Your task to perform on an android device: Open the phone app and click the voicemail tab. Image 0: 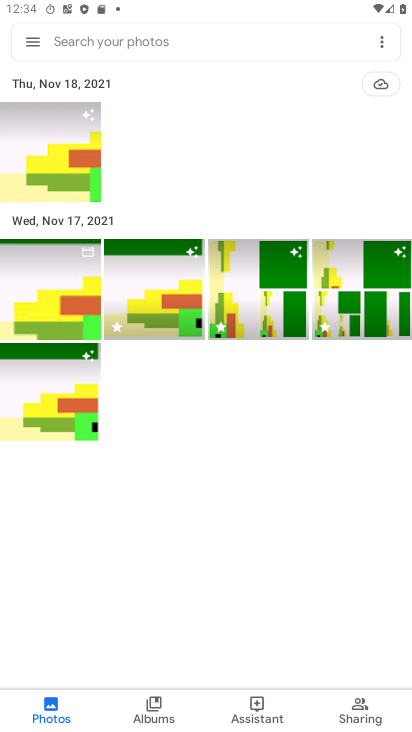
Step 0: press home button
Your task to perform on an android device: Open the phone app and click the voicemail tab. Image 1: 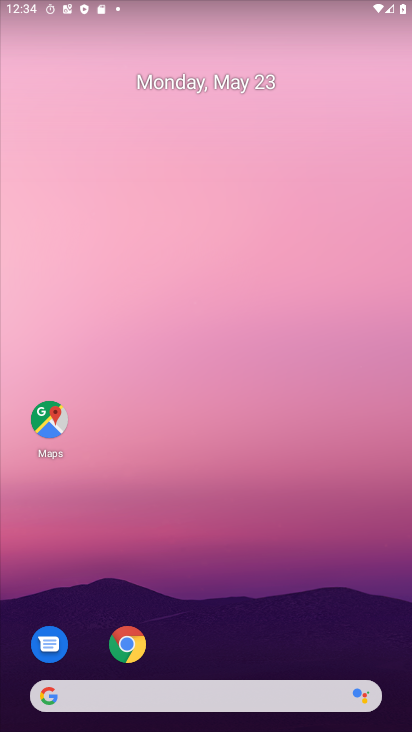
Step 1: drag from (256, 637) to (275, 40)
Your task to perform on an android device: Open the phone app and click the voicemail tab. Image 2: 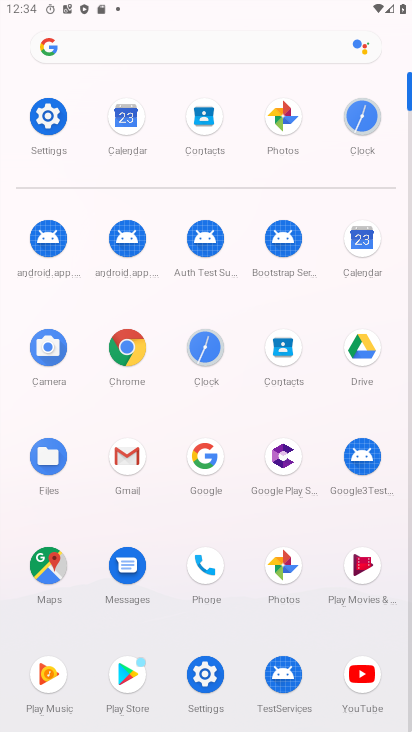
Step 2: click (210, 560)
Your task to perform on an android device: Open the phone app and click the voicemail tab. Image 3: 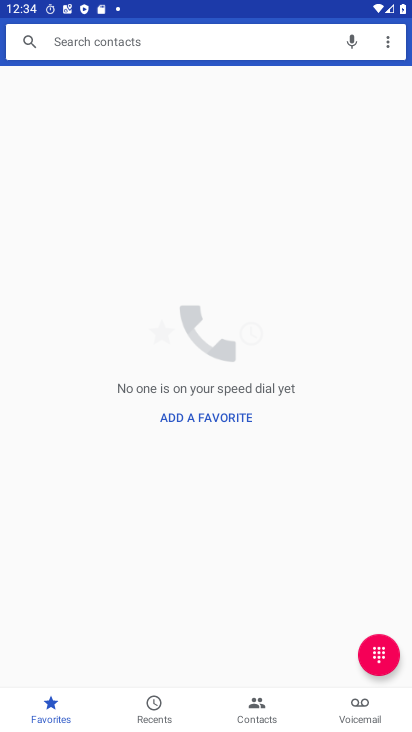
Step 3: click (369, 707)
Your task to perform on an android device: Open the phone app and click the voicemail tab. Image 4: 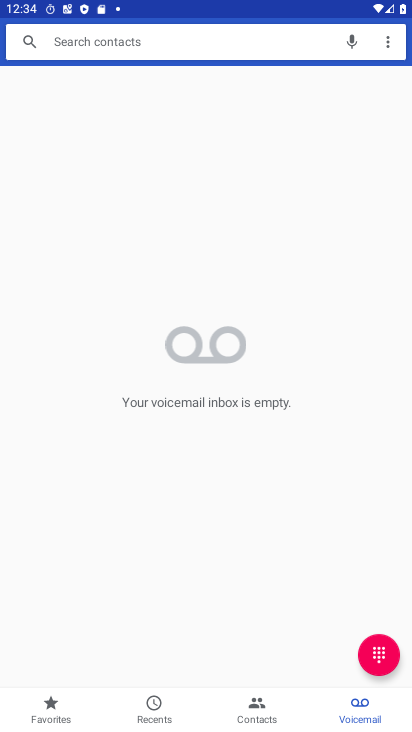
Step 4: task complete